Your task to perform on an android device: clear all cookies in the chrome app Image 0: 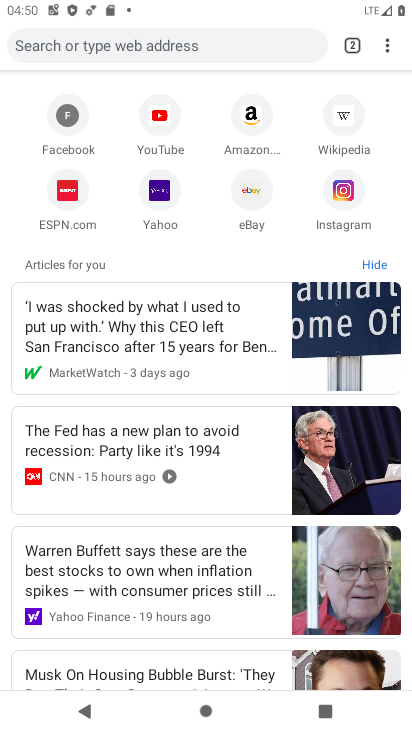
Step 0: press back button
Your task to perform on an android device: clear all cookies in the chrome app Image 1: 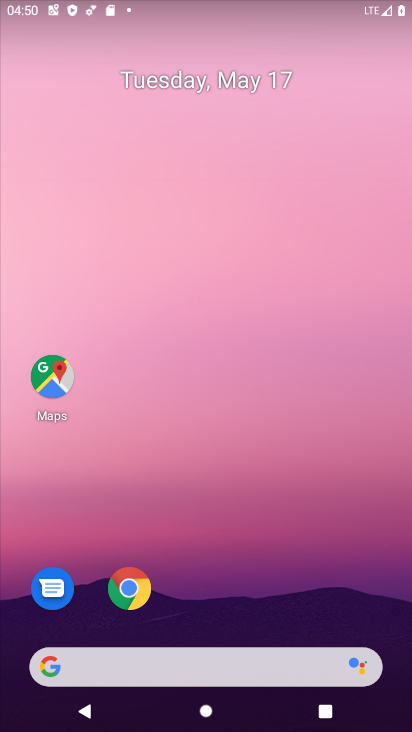
Step 1: click (130, 589)
Your task to perform on an android device: clear all cookies in the chrome app Image 2: 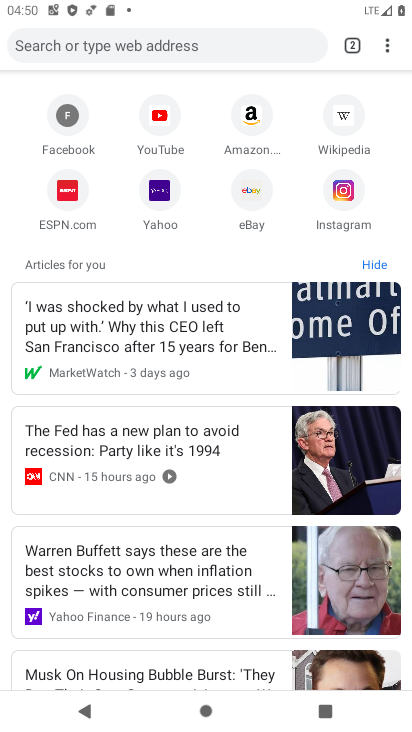
Step 2: click (387, 47)
Your task to perform on an android device: clear all cookies in the chrome app Image 3: 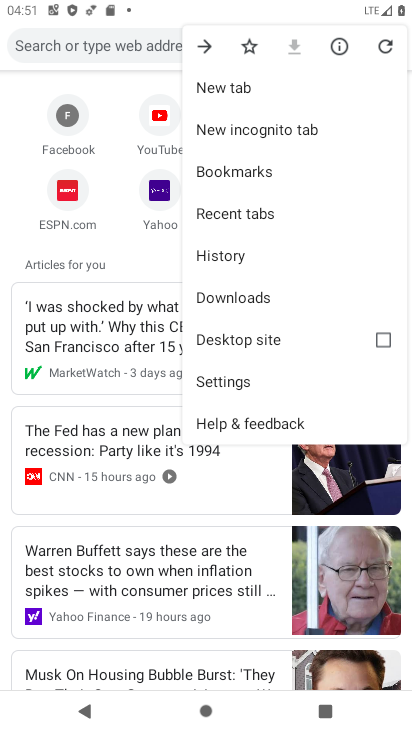
Step 3: click (229, 381)
Your task to perform on an android device: clear all cookies in the chrome app Image 4: 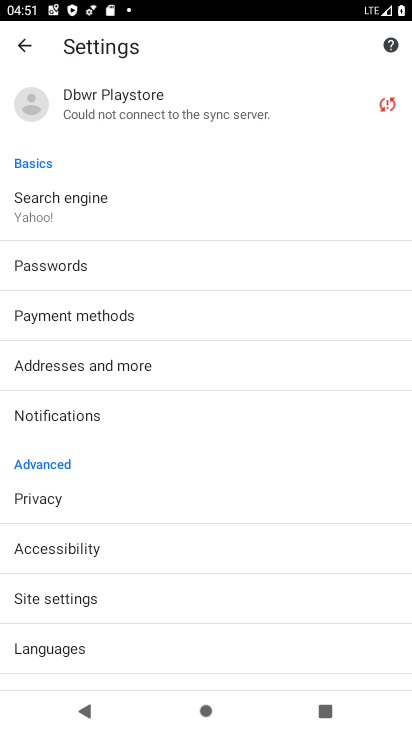
Step 4: click (36, 499)
Your task to perform on an android device: clear all cookies in the chrome app Image 5: 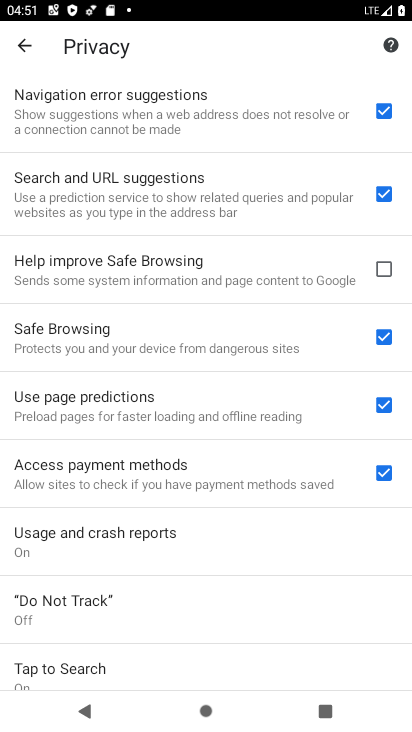
Step 5: drag from (151, 581) to (206, 479)
Your task to perform on an android device: clear all cookies in the chrome app Image 6: 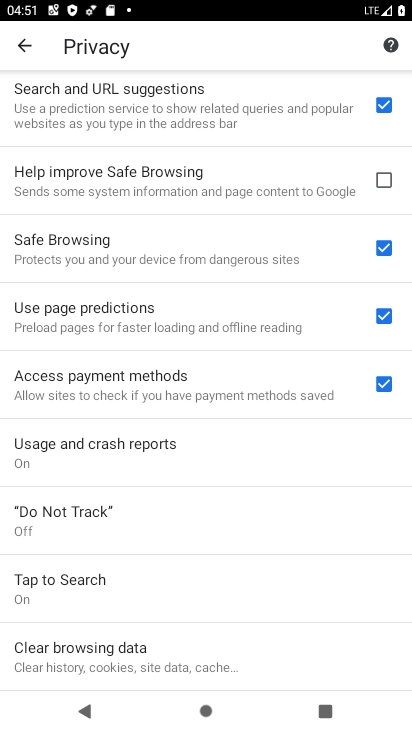
Step 6: click (117, 649)
Your task to perform on an android device: clear all cookies in the chrome app Image 7: 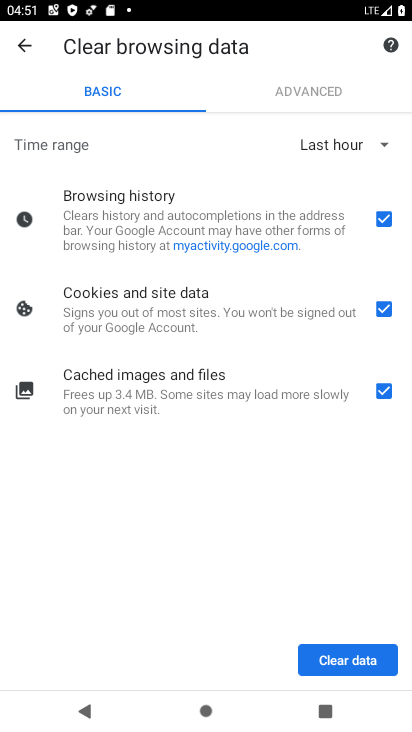
Step 7: click (387, 218)
Your task to perform on an android device: clear all cookies in the chrome app Image 8: 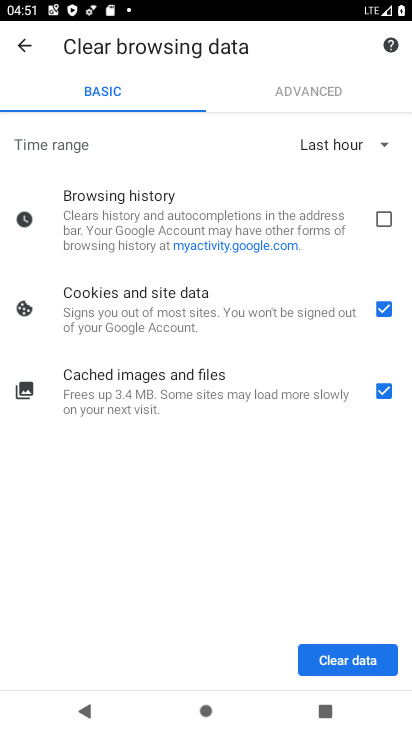
Step 8: click (374, 398)
Your task to perform on an android device: clear all cookies in the chrome app Image 9: 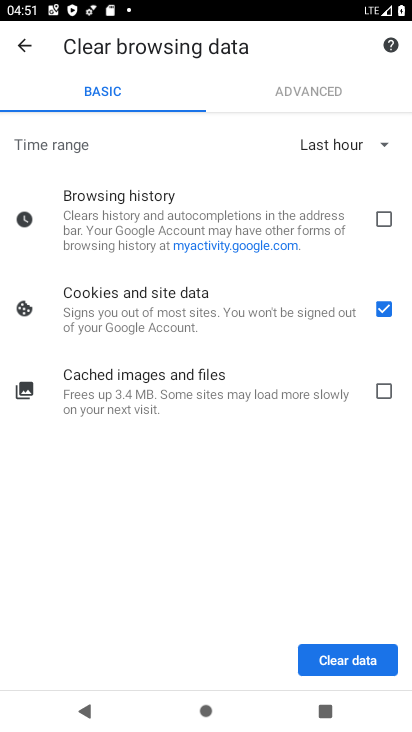
Step 9: click (382, 151)
Your task to perform on an android device: clear all cookies in the chrome app Image 10: 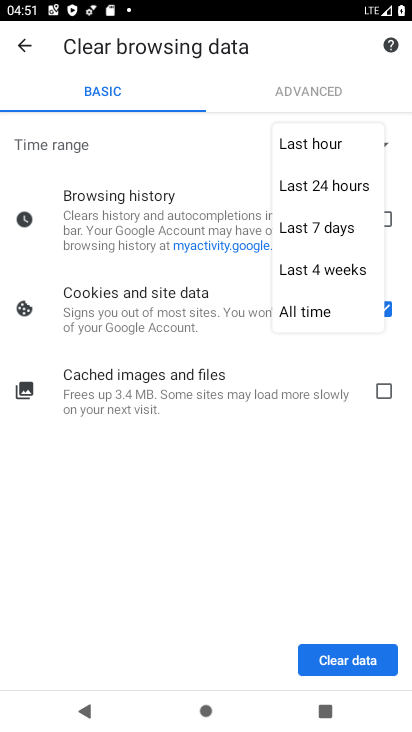
Step 10: click (287, 302)
Your task to perform on an android device: clear all cookies in the chrome app Image 11: 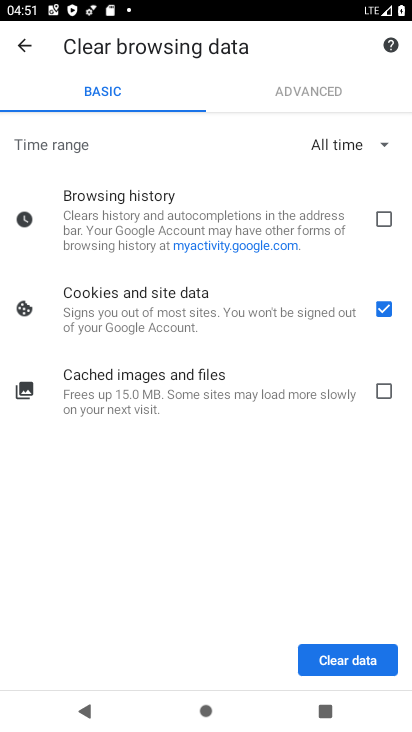
Step 11: click (345, 671)
Your task to perform on an android device: clear all cookies in the chrome app Image 12: 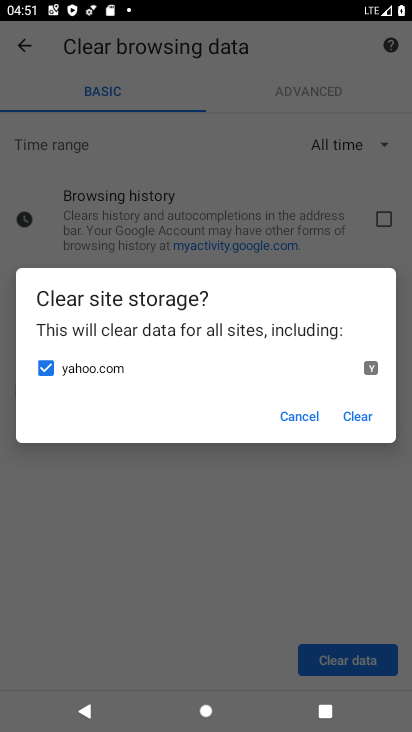
Step 12: click (361, 420)
Your task to perform on an android device: clear all cookies in the chrome app Image 13: 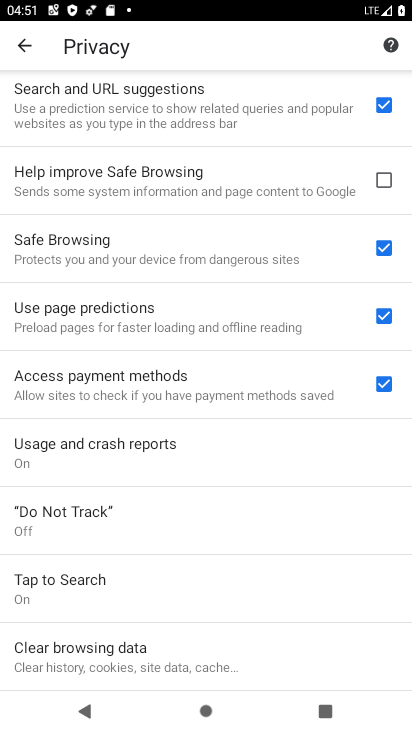
Step 13: task complete